Your task to perform on an android device: Go to accessibility settings Image 0: 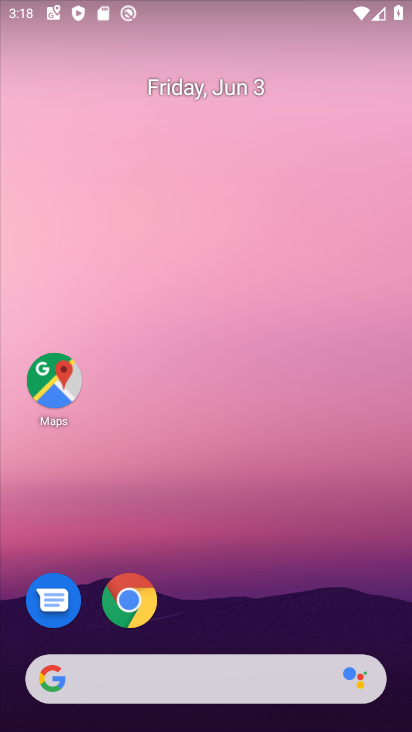
Step 0: drag from (326, 579) to (410, 138)
Your task to perform on an android device: Go to accessibility settings Image 1: 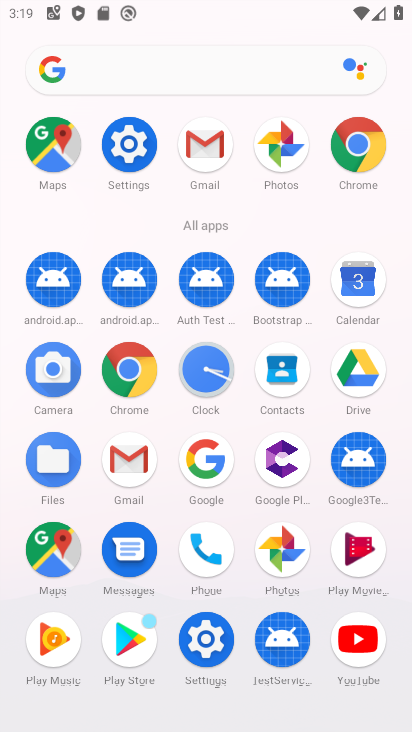
Step 1: click (201, 640)
Your task to perform on an android device: Go to accessibility settings Image 2: 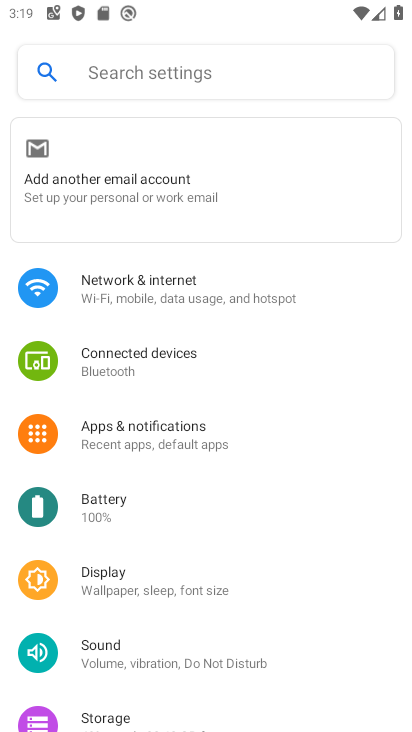
Step 2: drag from (156, 586) to (219, 51)
Your task to perform on an android device: Go to accessibility settings Image 3: 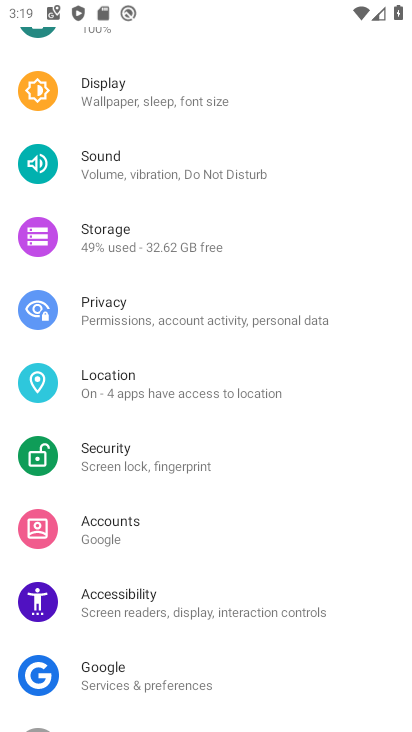
Step 3: click (130, 606)
Your task to perform on an android device: Go to accessibility settings Image 4: 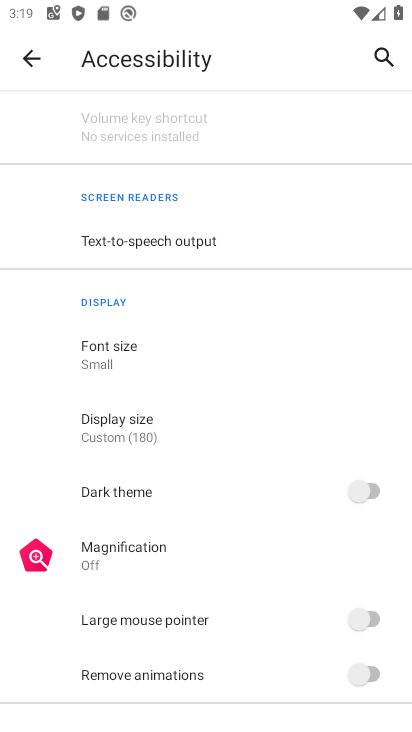
Step 4: task complete